Your task to perform on an android device: Show me recent news Image 0: 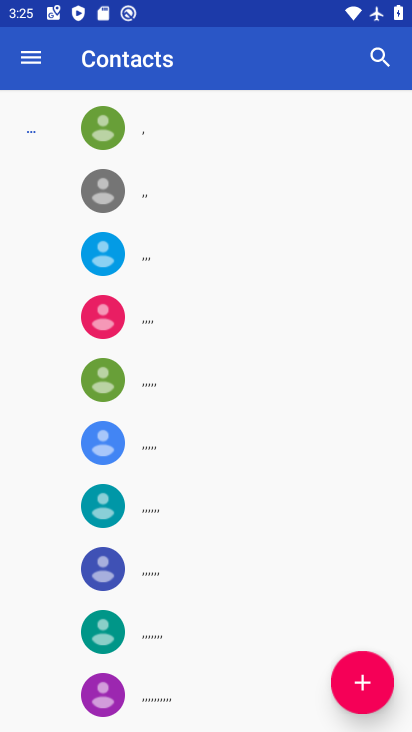
Step 0: press home button
Your task to perform on an android device: Show me recent news Image 1: 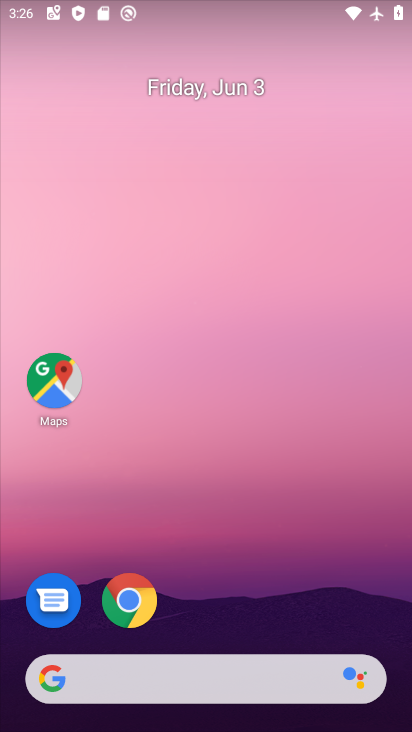
Step 1: click (203, 675)
Your task to perform on an android device: Show me recent news Image 2: 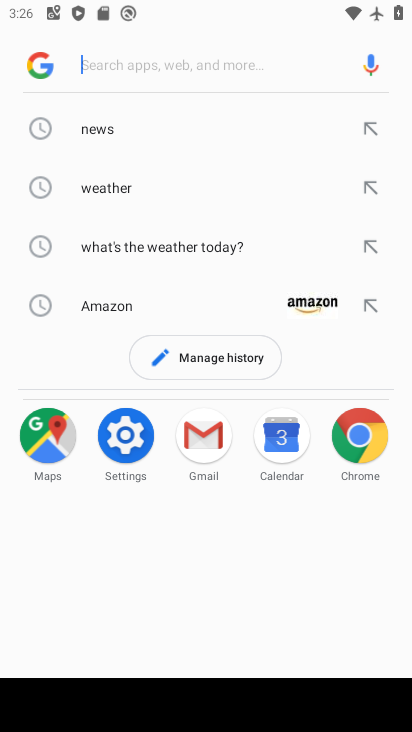
Step 2: type ""
Your task to perform on an android device: Show me recent news Image 3: 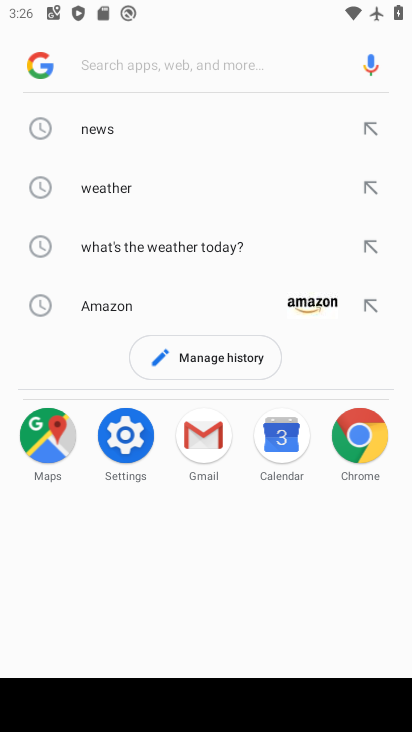
Step 3: type ""
Your task to perform on an android device: Show me recent news Image 4: 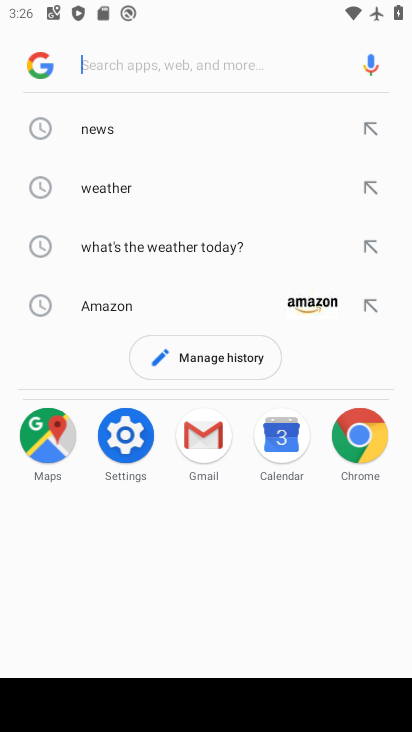
Step 4: type "recent news"
Your task to perform on an android device: Show me recent news Image 5: 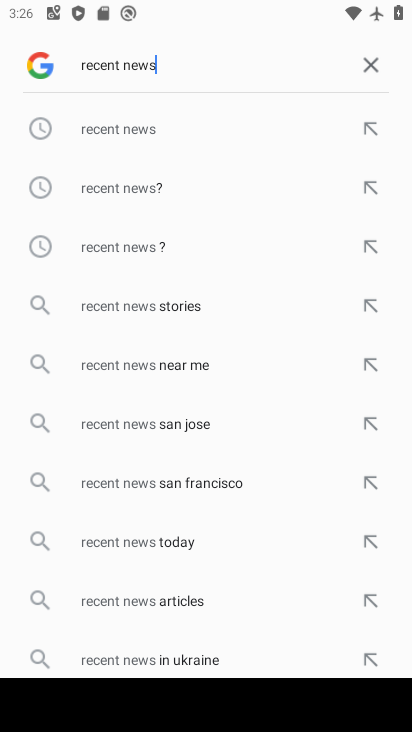
Step 5: click (147, 134)
Your task to perform on an android device: Show me recent news Image 6: 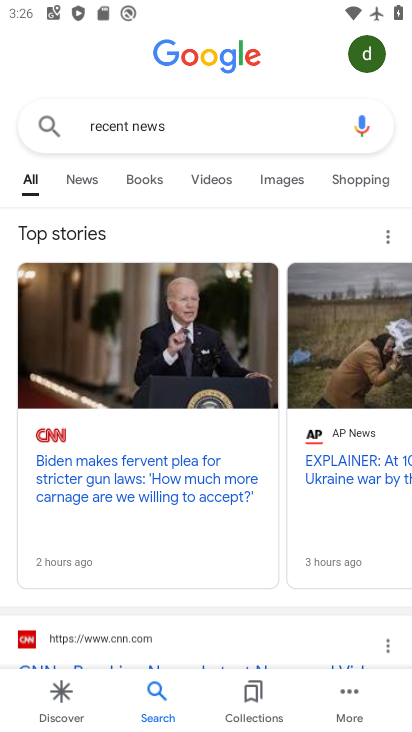
Step 6: task complete